Your task to perform on an android device: turn off improve location accuracy Image 0: 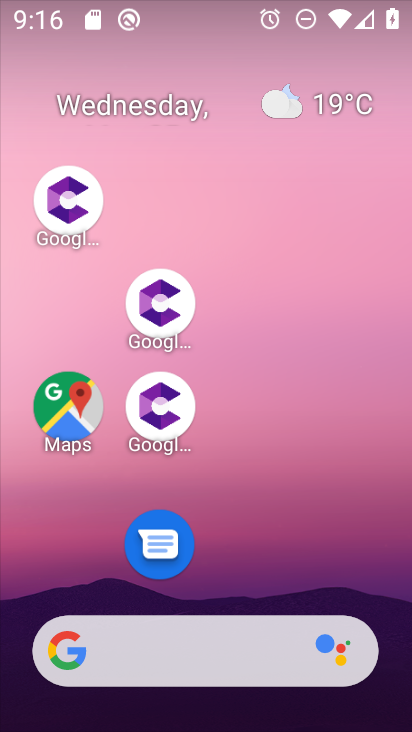
Step 0: drag from (312, 520) to (255, 20)
Your task to perform on an android device: turn off improve location accuracy Image 1: 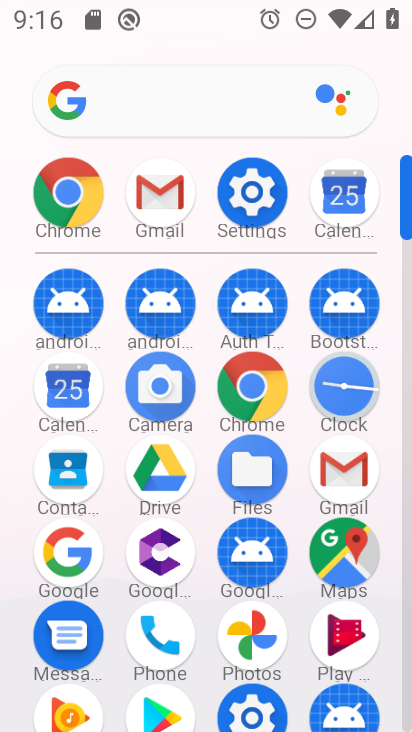
Step 1: click (254, 188)
Your task to perform on an android device: turn off improve location accuracy Image 2: 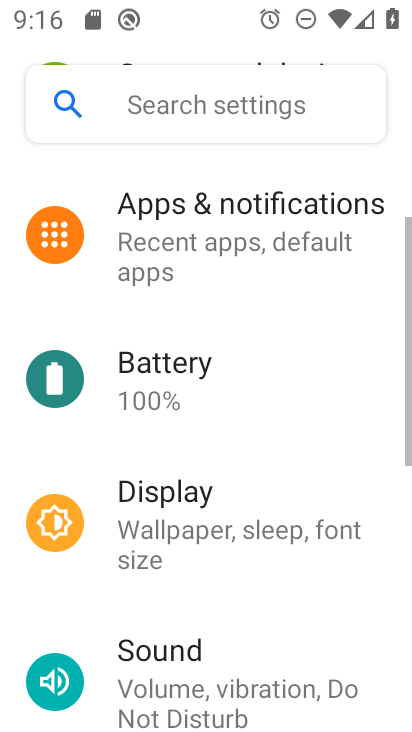
Step 2: drag from (274, 576) to (264, 86)
Your task to perform on an android device: turn off improve location accuracy Image 3: 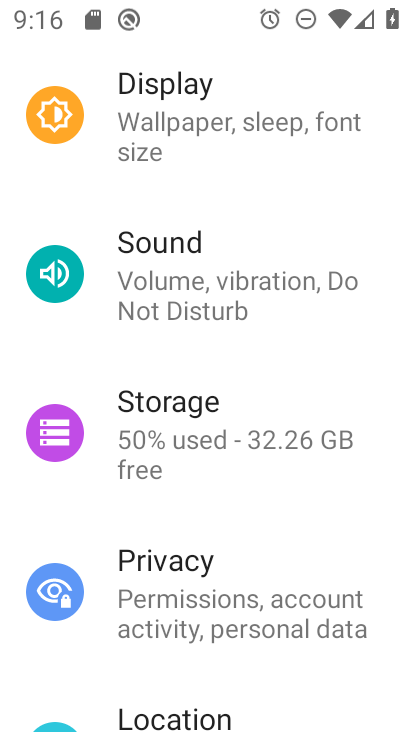
Step 3: drag from (252, 504) to (231, 198)
Your task to perform on an android device: turn off improve location accuracy Image 4: 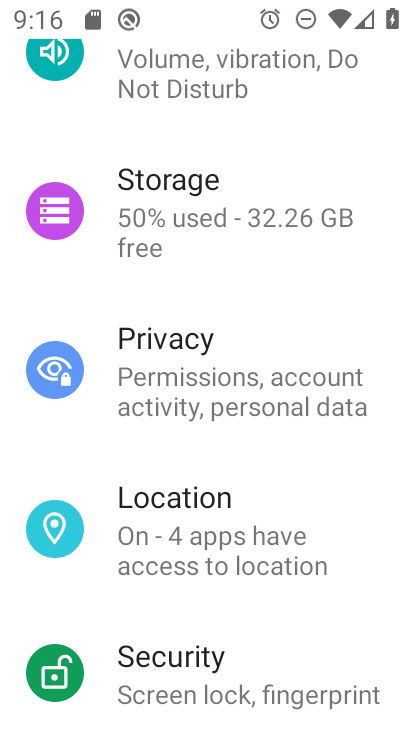
Step 4: click (165, 519)
Your task to perform on an android device: turn off improve location accuracy Image 5: 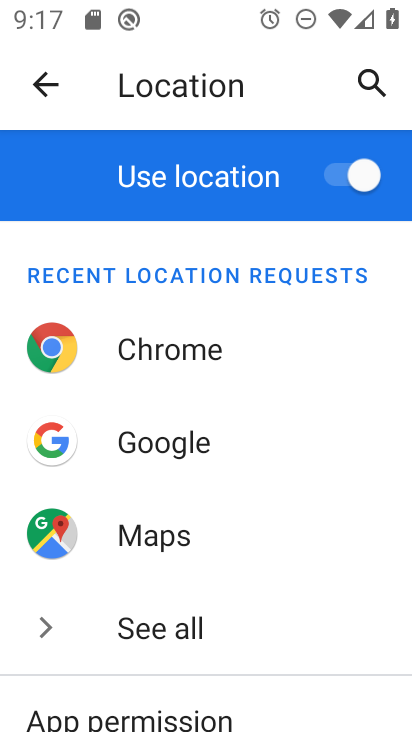
Step 5: drag from (268, 448) to (243, 149)
Your task to perform on an android device: turn off improve location accuracy Image 6: 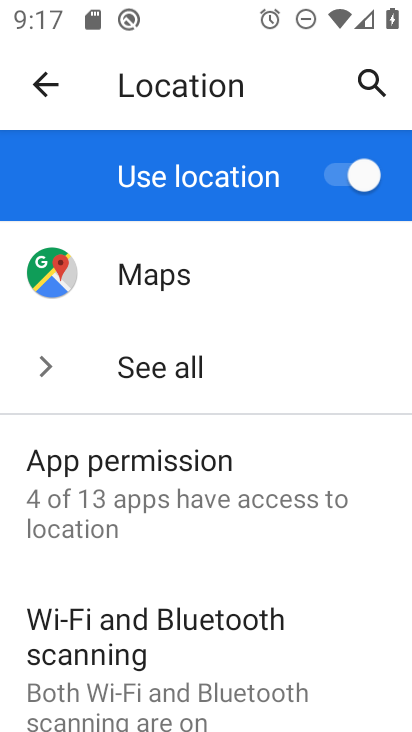
Step 6: drag from (226, 538) to (171, 154)
Your task to perform on an android device: turn off improve location accuracy Image 7: 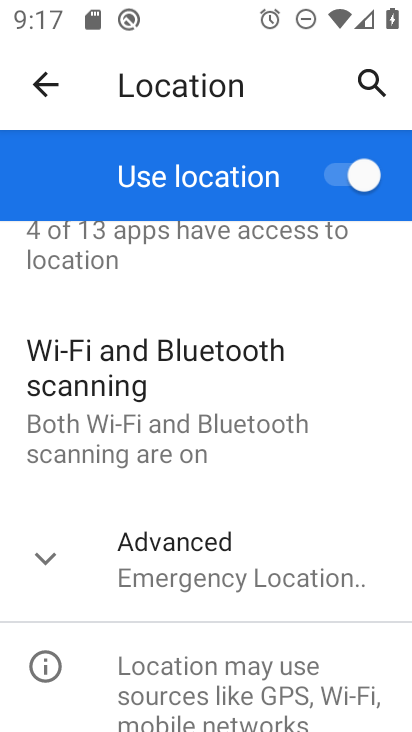
Step 7: click (59, 547)
Your task to perform on an android device: turn off improve location accuracy Image 8: 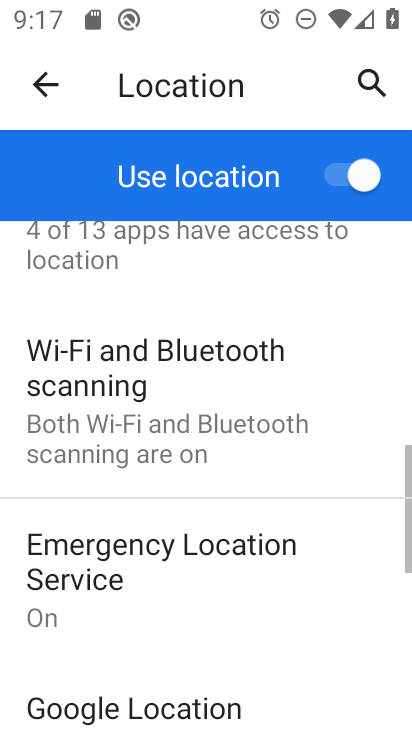
Step 8: drag from (169, 585) to (147, 320)
Your task to perform on an android device: turn off improve location accuracy Image 9: 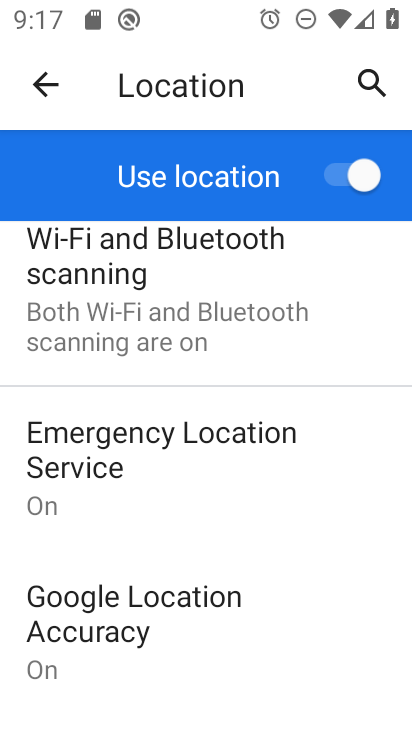
Step 9: click (121, 606)
Your task to perform on an android device: turn off improve location accuracy Image 10: 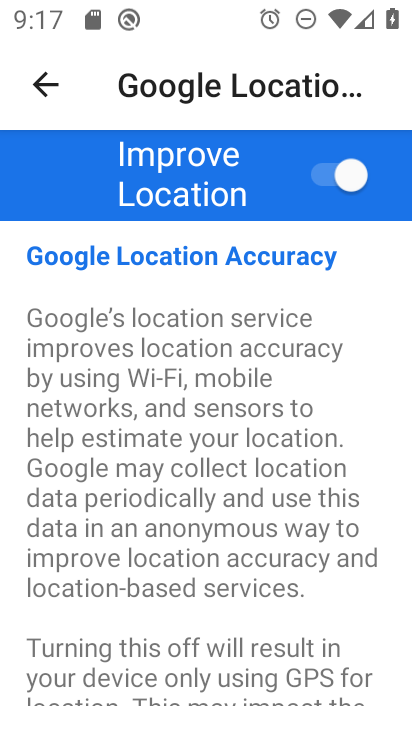
Step 10: click (333, 177)
Your task to perform on an android device: turn off improve location accuracy Image 11: 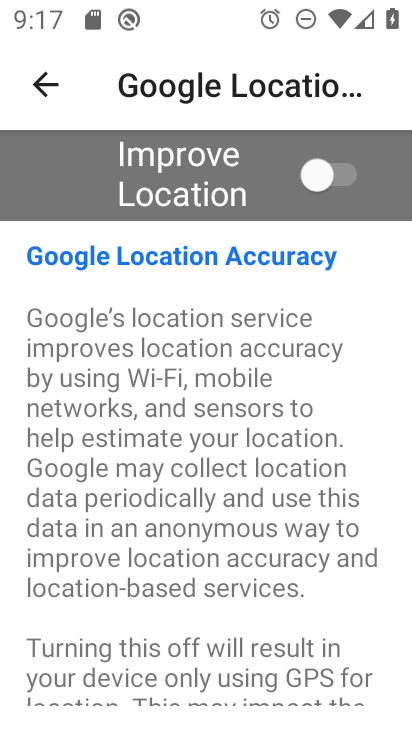
Step 11: task complete